Your task to perform on an android device: Set the phone to "Do not disturb". Image 0: 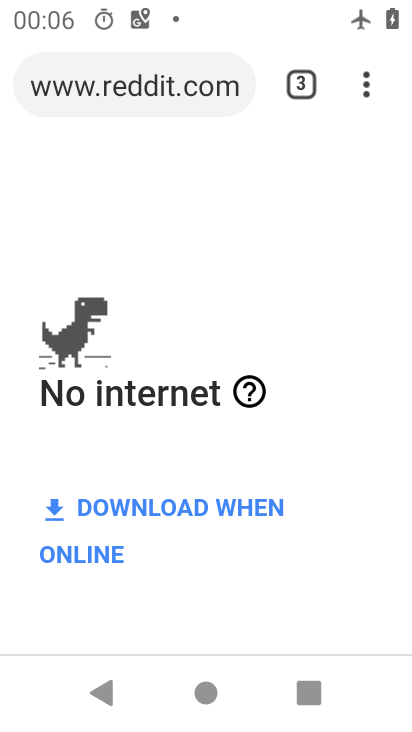
Step 0: press home button
Your task to perform on an android device: Set the phone to "Do not disturb". Image 1: 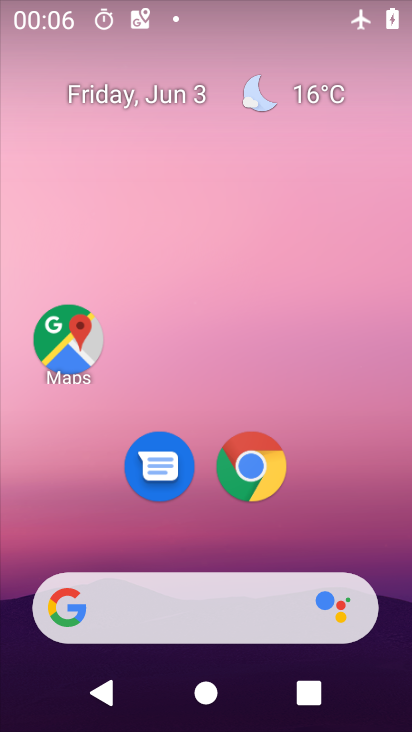
Step 1: drag from (212, 482) to (196, 220)
Your task to perform on an android device: Set the phone to "Do not disturb". Image 2: 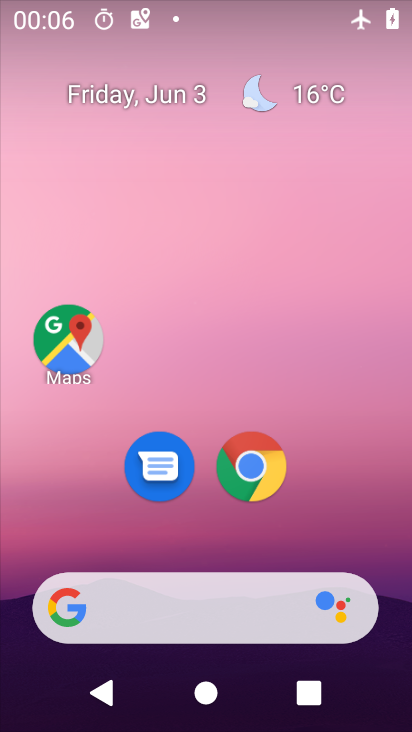
Step 2: drag from (216, 542) to (219, 183)
Your task to perform on an android device: Set the phone to "Do not disturb". Image 3: 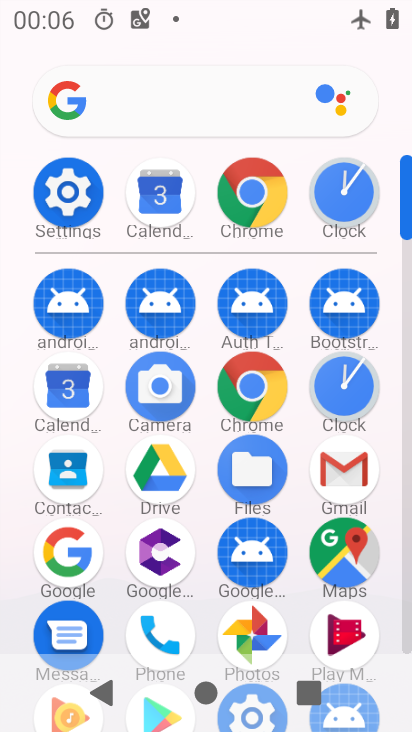
Step 3: drag from (189, 558) to (171, 317)
Your task to perform on an android device: Set the phone to "Do not disturb". Image 4: 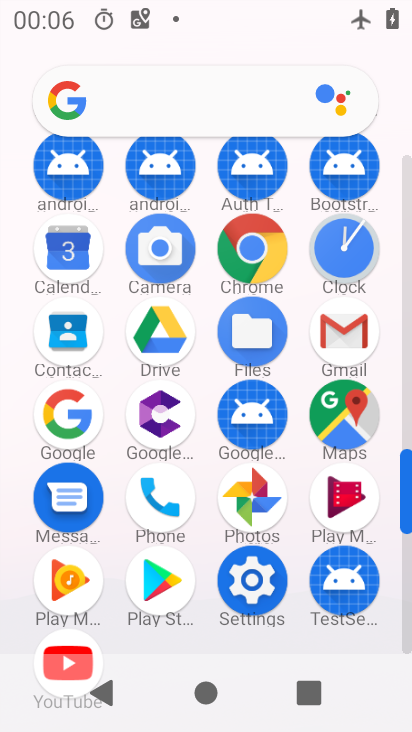
Step 4: click (239, 615)
Your task to perform on an android device: Set the phone to "Do not disturb". Image 5: 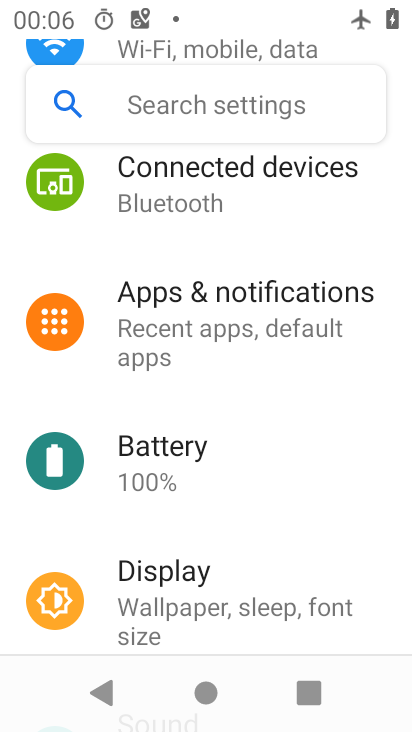
Step 5: drag from (203, 291) to (239, 568)
Your task to perform on an android device: Set the phone to "Do not disturb". Image 6: 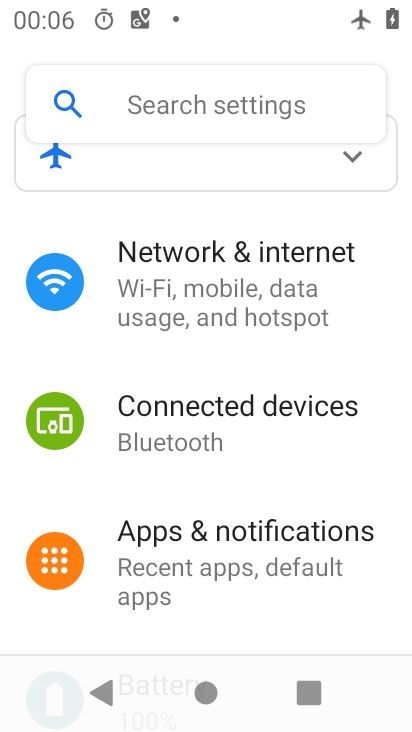
Step 6: drag from (248, 562) to (251, 275)
Your task to perform on an android device: Set the phone to "Do not disturb". Image 7: 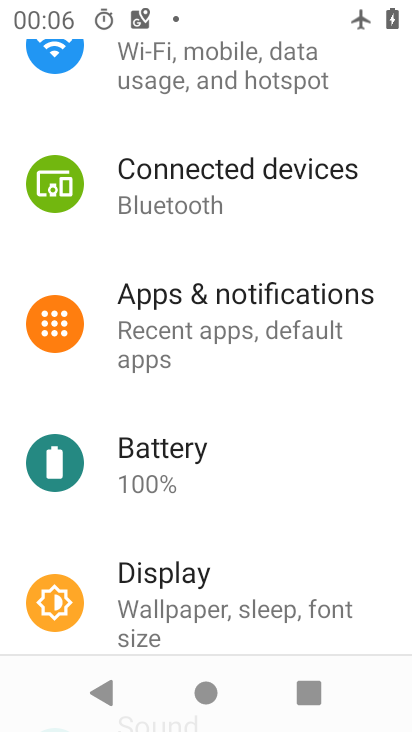
Step 7: drag from (252, 407) to (258, 205)
Your task to perform on an android device: Set the phone to "Do not disturb". Image 8: 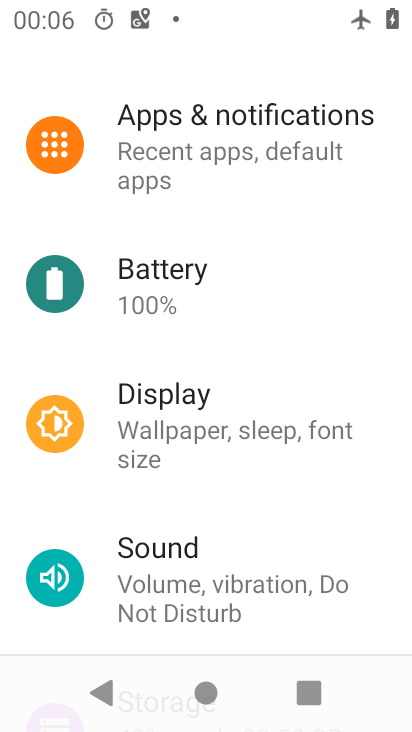
Step 8: drag from (273, 548) to (242, 294)
Your task to perform on an android device: Set the phone to "Do not disturb". Image 9: 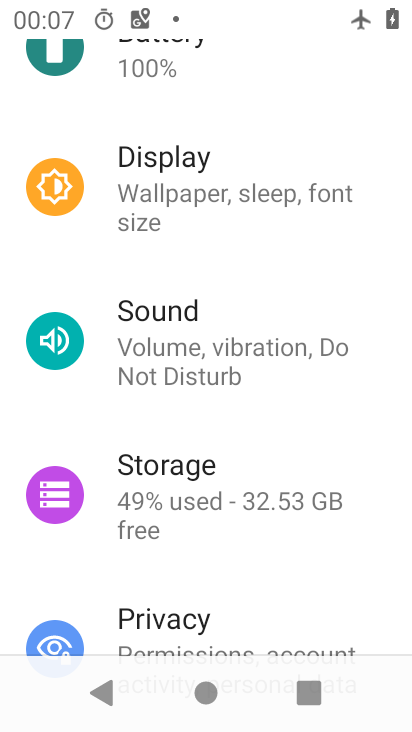
Step 9: drag from (253, 587) to (231, 443)
Your task to perform on an android device: Set the phone to "Do not disturb". Image 10: 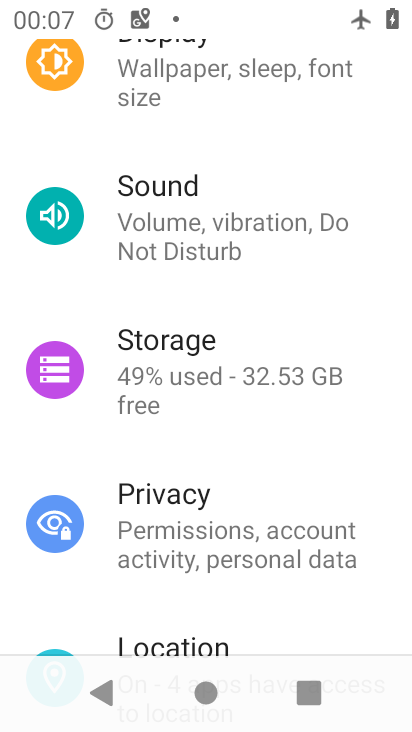
Step 10: click (189, 259)
Your task to perform on an android device: Set the phone to "Do not disturb". Image 11: 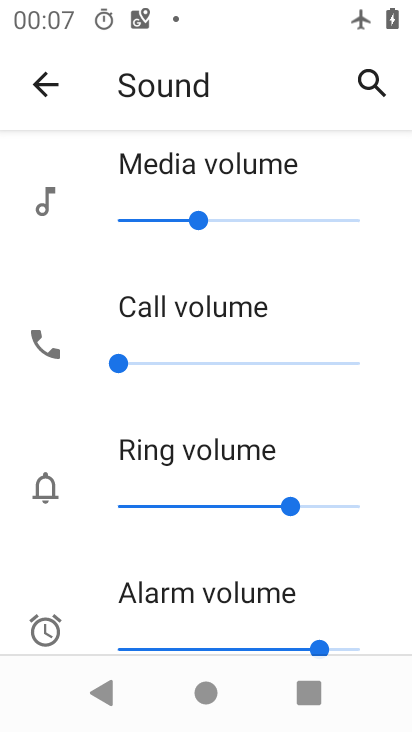
Step 11: drag from (218, 578) to (202, 410)
Your task to perform on an android device: Set the phone to "Do not disturb". Image 12: 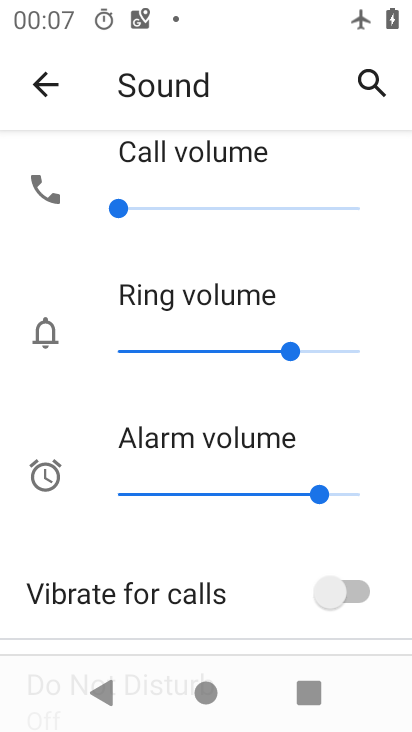
Step 12: drag from (187, 621) to (190, 384)
Your task to perform on an android device: Set the phone to "Do not disturb". Image 13: 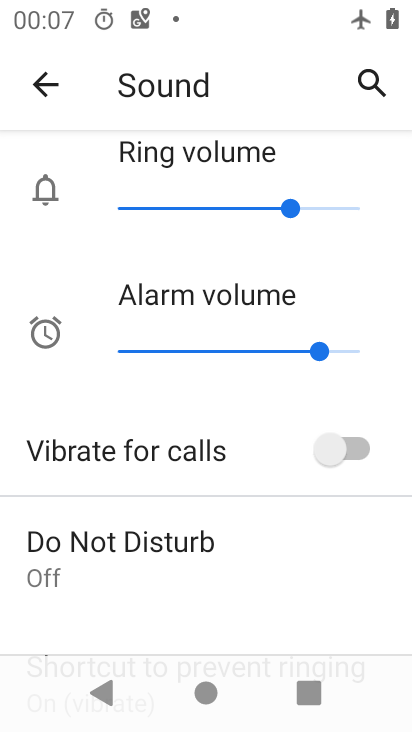
Step 13: click (225, 544)
Your task to perform on an android device: Set the phone to "Do not disturb". Image 14: 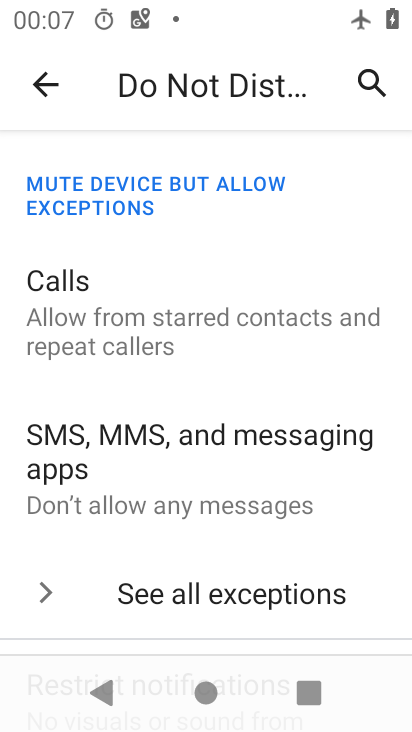
Step 14: drag from (254, 538) to (244, 237)
Your task to perform on an android device: Set the phone to "Do not disturb". Image 15: 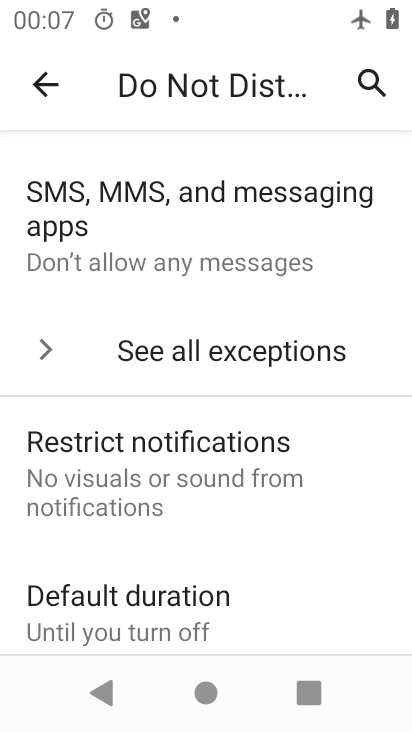
Step 15: click (206, 277)
Your task to perform on an android device: Set the phone to "Do not disturb". Image 16: 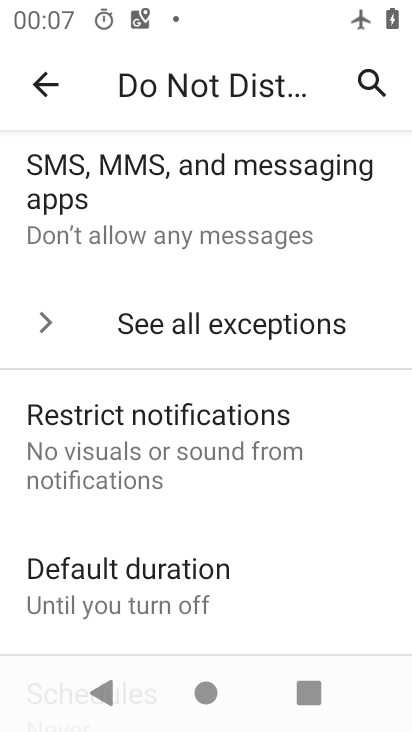
Step 16: drag from (232, 594) to (231, 247)
Your task to perform on an android device: Set the phone to "Do not disturb". Image 17: 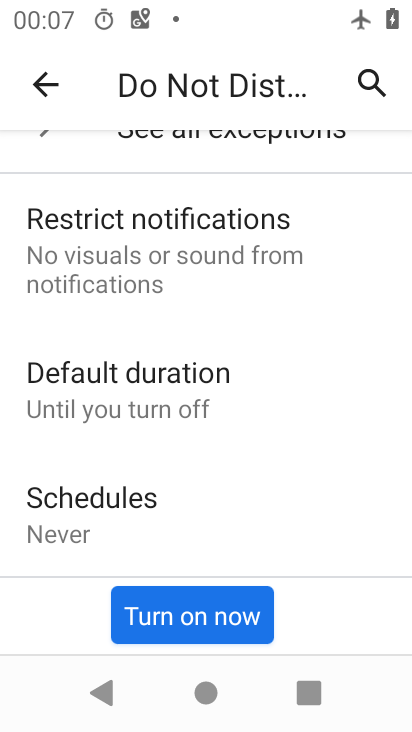
Step 17: click (227, 600)
Your task to perform on an android device: Set the phone to "Do not disturb". Image 18: 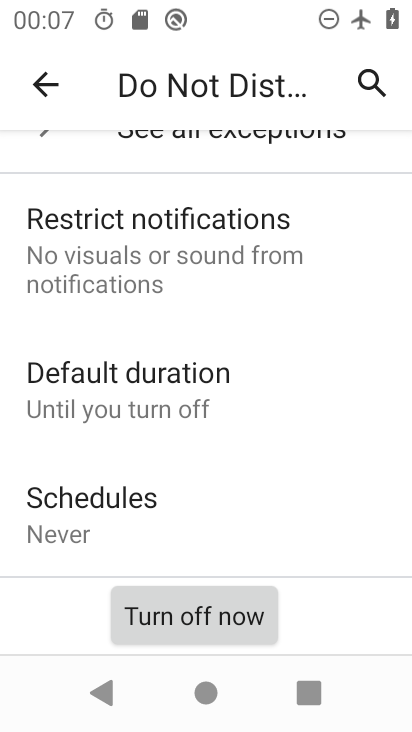
Step 18: task complete